Your task to perform on an android device: toggle improve location accuracy Image 0: 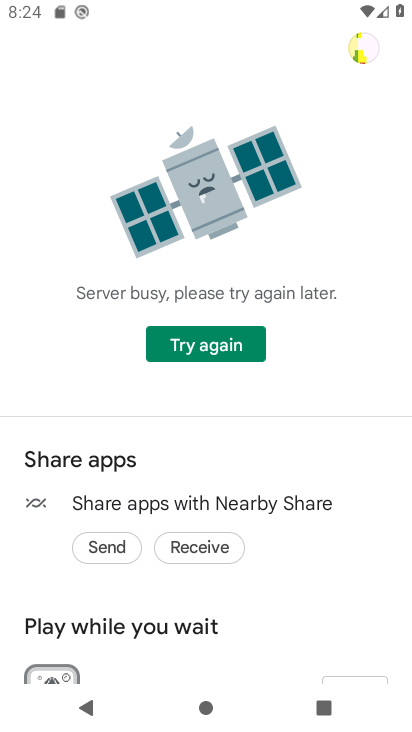
Step 0: press home button
Your task to perform on an android device: toggle improve location accuracy Image 1: 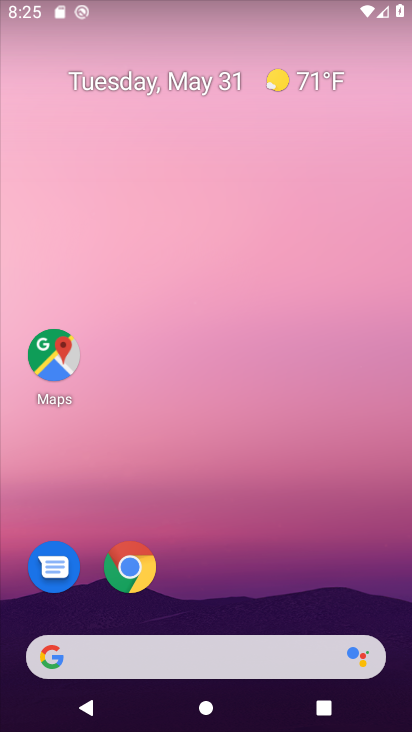
Step 1: drag from (216, 615) to (221, 174)
Your task to perform on an android device: toggle improve location accuracy Image 2: 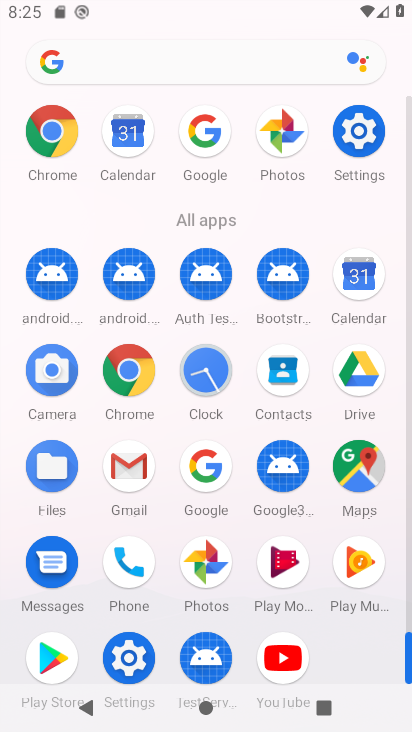
Step 2: click (364, 136)
Your task to perform on an android device: toggle improve location accuracy Image 3: 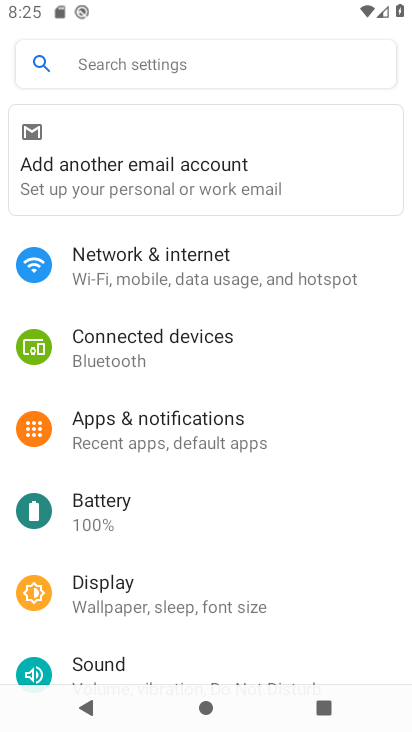
Step 3: drag from (104, 671) to (156, 167)
Your task to perform on an android device: toggle improve location accuracy Image 4: 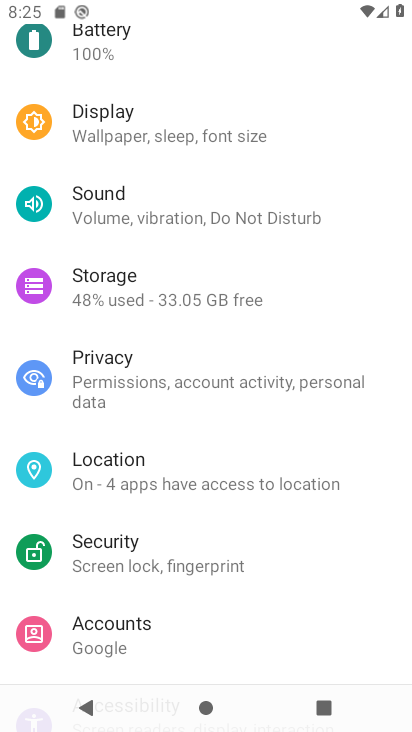
Step 4: click (102, 457)
Your task to perform on an android device: toggle improve location accuracy Image 5: 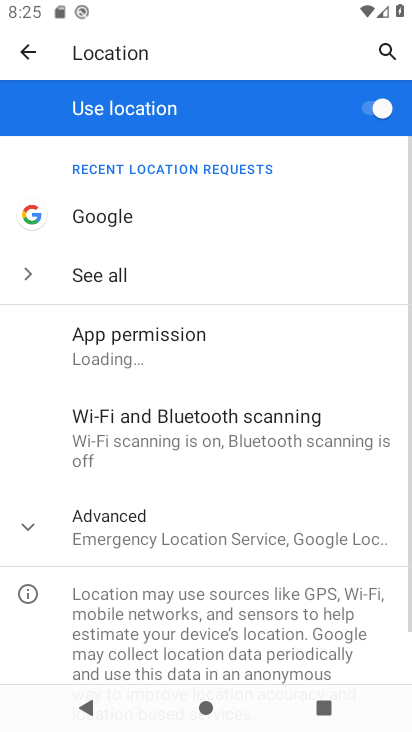
Step 5: click (111, 520)
Your task to perform on an android device: toggle improve location accuracy Image 6: 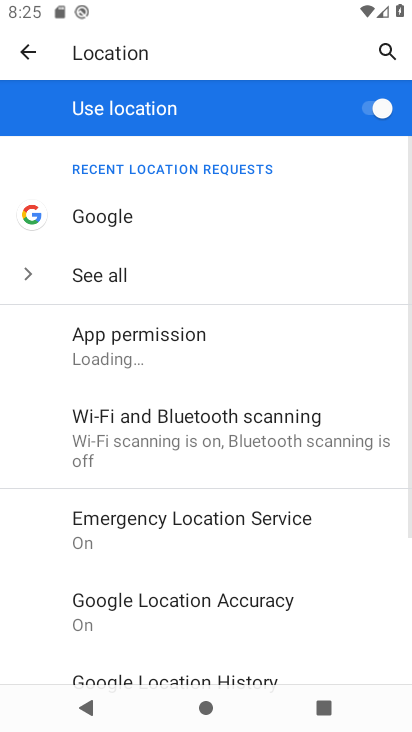
Step 6: drag from (156, 650) to (221, 278)
Your task to perform on an android device: toggle improve location accuracy Image 7: 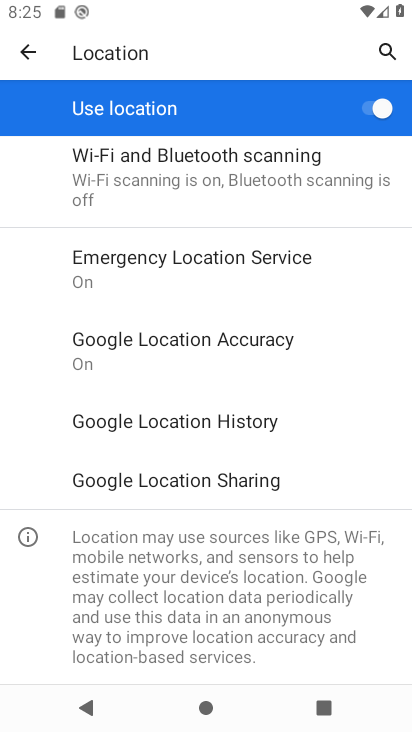
Step 7: click (158, 356)
Your task to perform on an android device: toggle improve location accuracy Image 8: 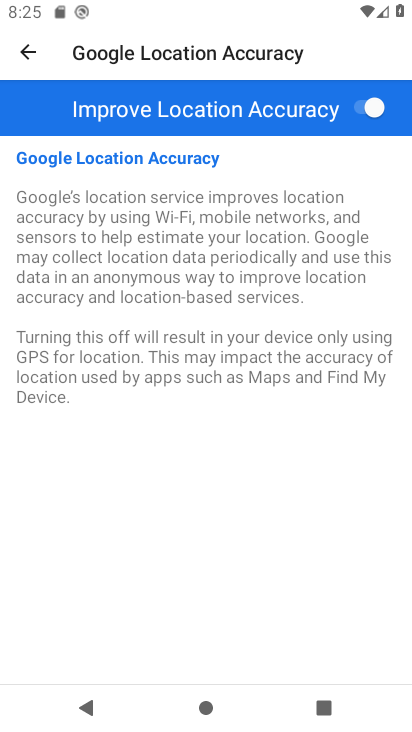
Step 8: click (363, 108)
Your task to perform on an android device: toggle improve location accuracy Image 9: 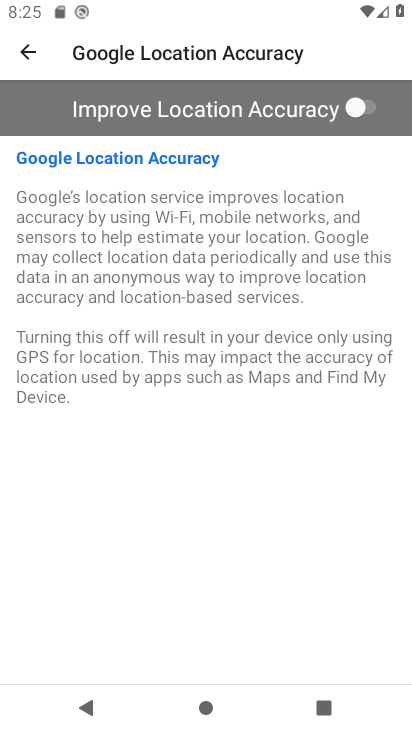
Step 9: task complete